Your task to perform on an android device: Go to Wikipedia Image 0: 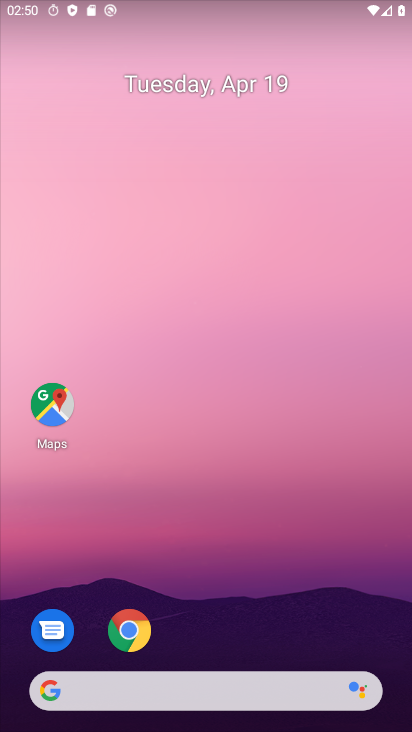
Step 0: drag from (282, 634) to (308, 226)
Your task to perform on an android device: Go to Wikipedia Image 1: 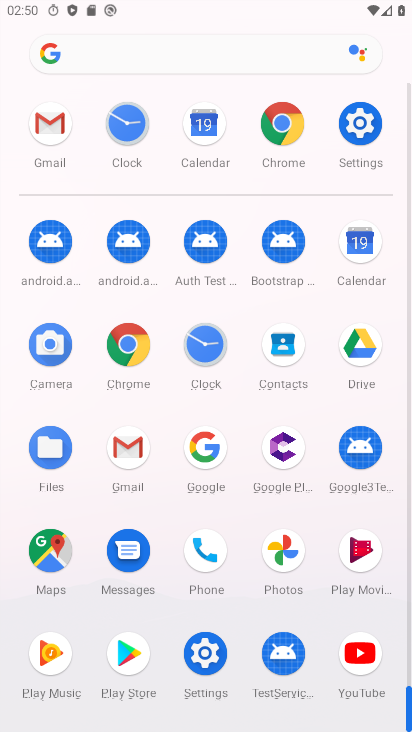
Step 1: click (282, 123)
Your task to perform on an android device: Go to Wikipedia Image 2: 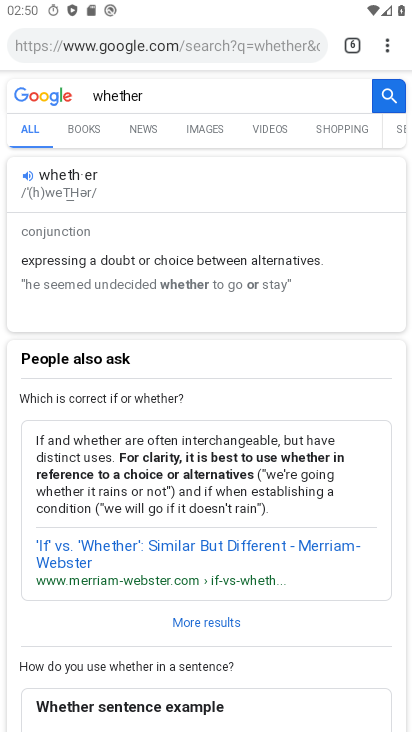
Step 2: click (282, 123)
Your task to perform on an android device: Go to Wikipedia Image 3: 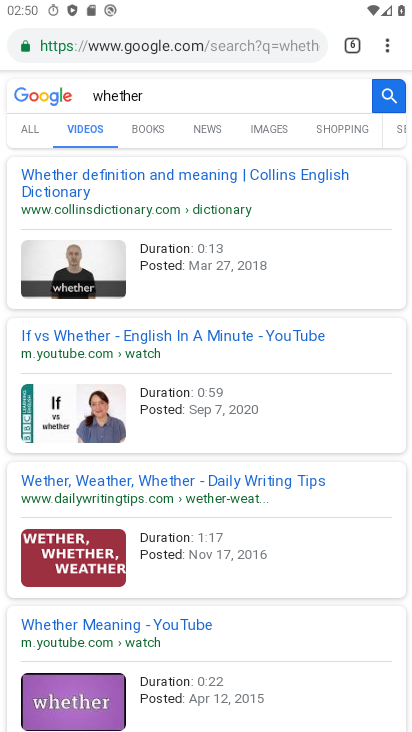
Step 3: click (349, 41)
Your task to perform on an android device: Go to Wikipedia Image 4: 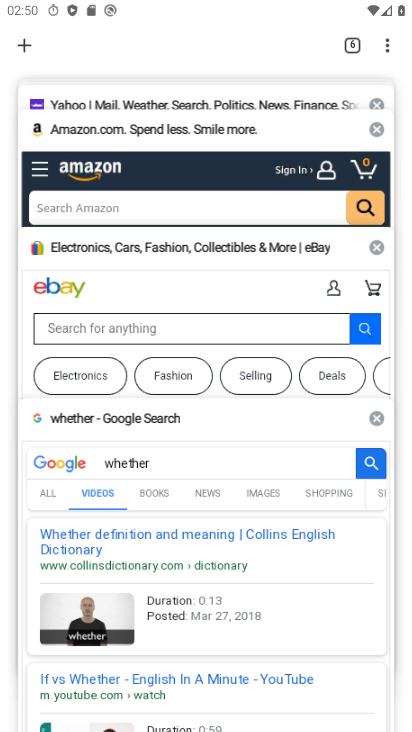
Step 4: click (25, 46)
Your task to perform on an android device: Go to Wikipedia Image 5: 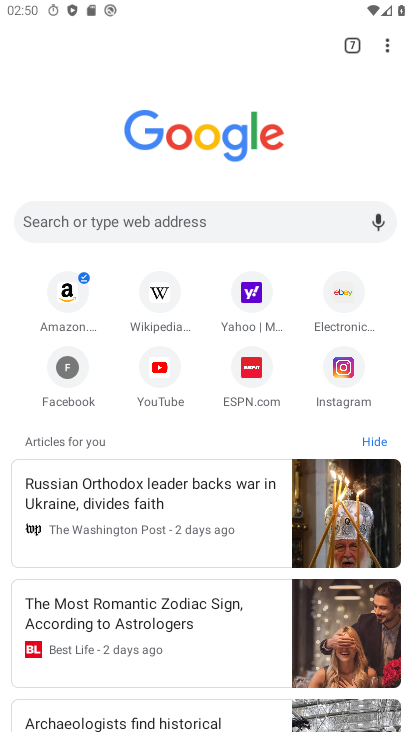
Step 5: click (162, 293)
Your task to perform on an android device: Go to Wikipedia Image 6: 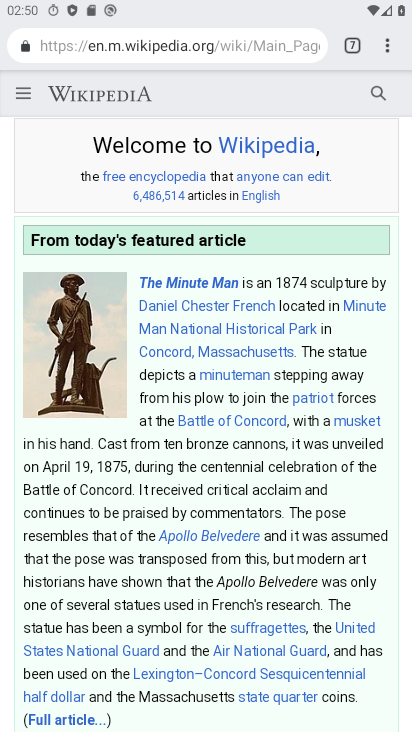
Step 6: task complete